Your task to perform on an android device: snooze an email in the gmail app Image 0: 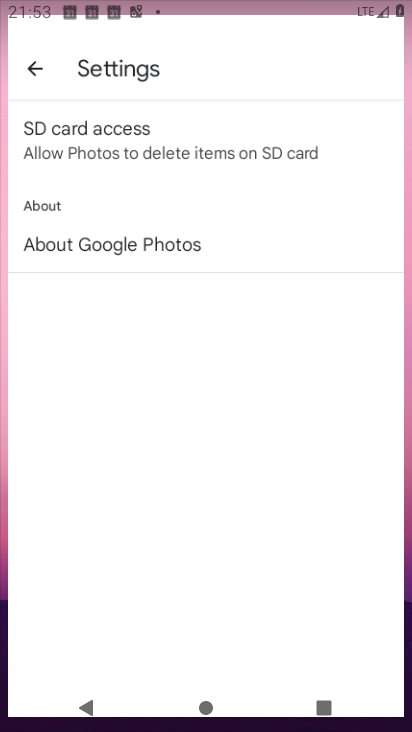
Step 0: drag from (211, 585) to (298, 104)
Your task to perform on an android device: snooze an email in the gmail app Image 1: 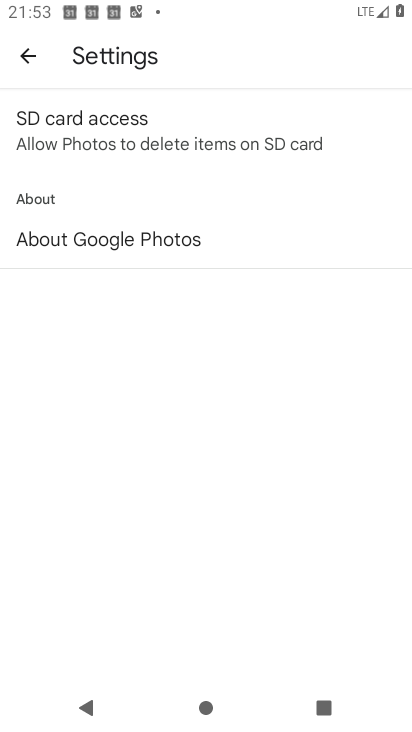
Step 1: press home button
Your task to perform on an android device: snooze an email in the gmail app Image 2: 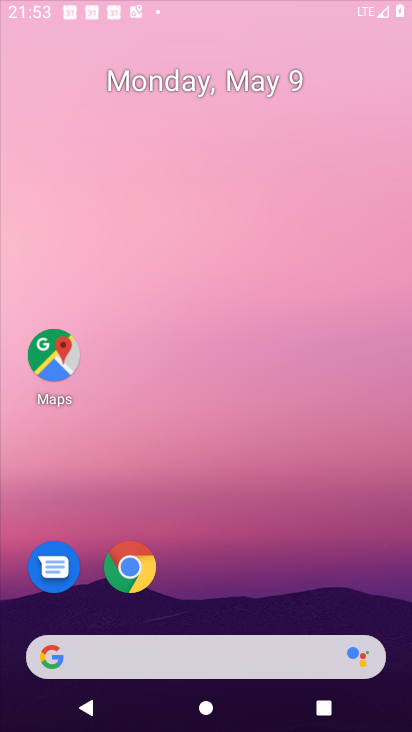
Step 2: drag from (194, 598) to (296, 153)
Your task to perform on an android device: snooze an email in the gmail app Image 3: 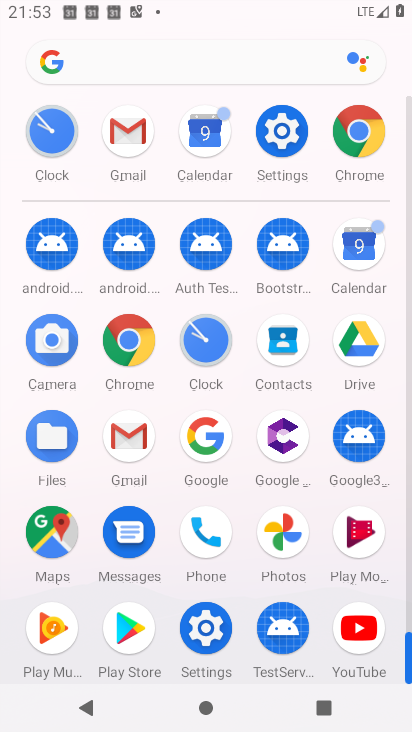
Step 3: click (121, 440)
Your task to perform on an android device: snooze an email in the gmail app Image 4: 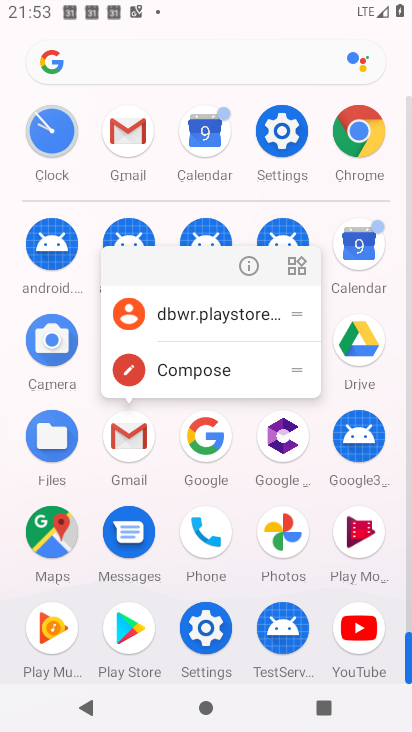
Step 4: click (242, 266)
Your task to perform on an android device: snooze an email in the gmail app Image 5: 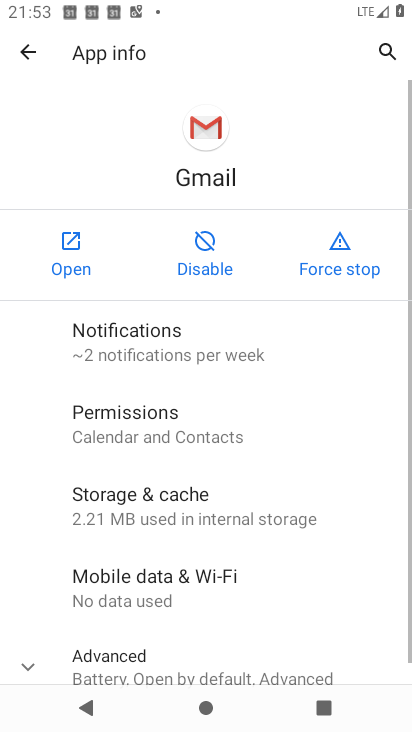
Step 5: click (64, 248)
Your task to perform on an android device: snooze an email in the gmail app Image 6: 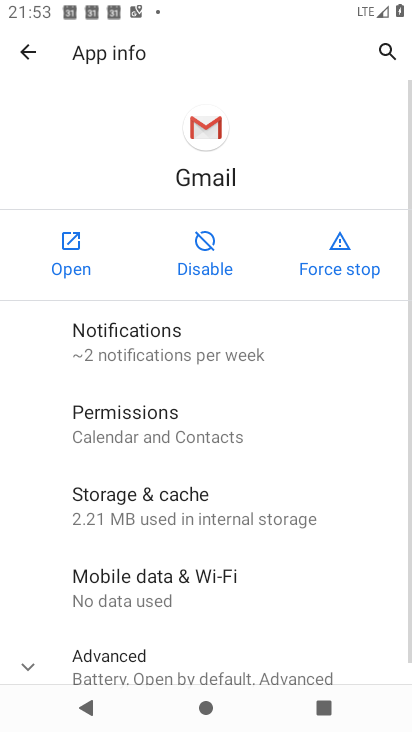
Step 6: click (64, 248)
Your task to perform on an android device: snooze an email in the gmail app Image 7: 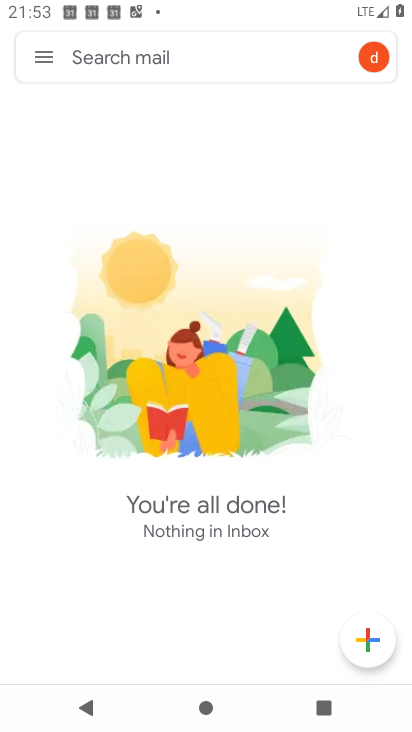
Step 7: drag from (216, 562) to (265, 276)
Your task to perform on an android device: snooze an email in the gmail app Image 8: 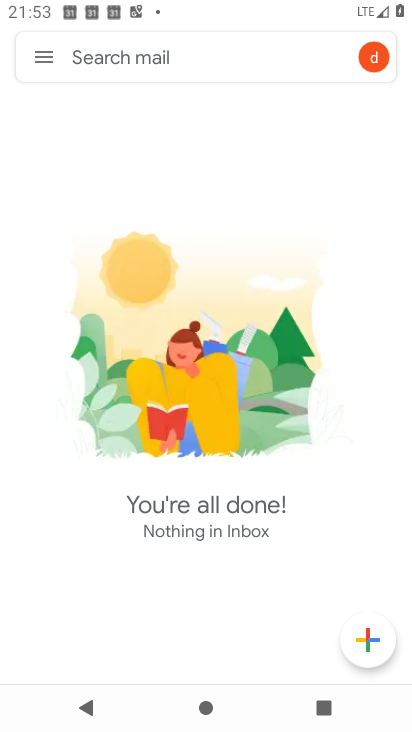
Step 8: click (45, 53)
Your task to perform on an android device: snooze an email in the gmail app Image 9: 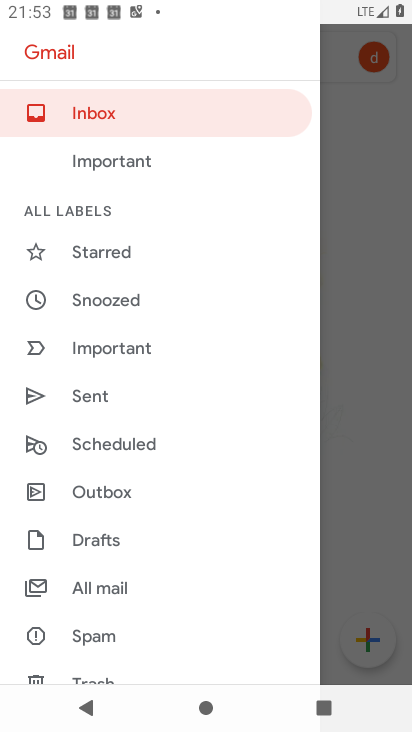
Step 9: task complete